Your task to perform on an android device: open chrome privacy settings Image 0: 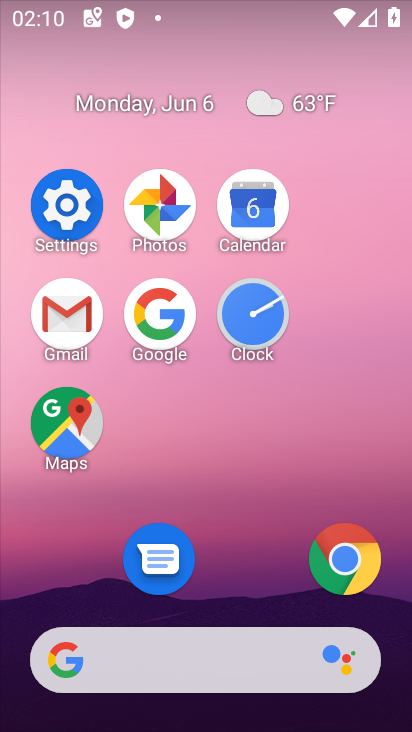
Step 0: click (366, 576)
Your task to perform on an android device: open chrome privacy settings Image 1: 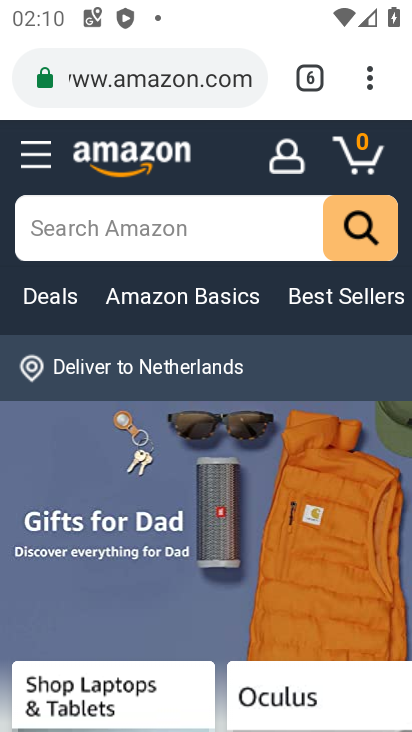
Step 1: click (375, 75)
Your task to perform on an android device: open chrome privacy settings Image 2: 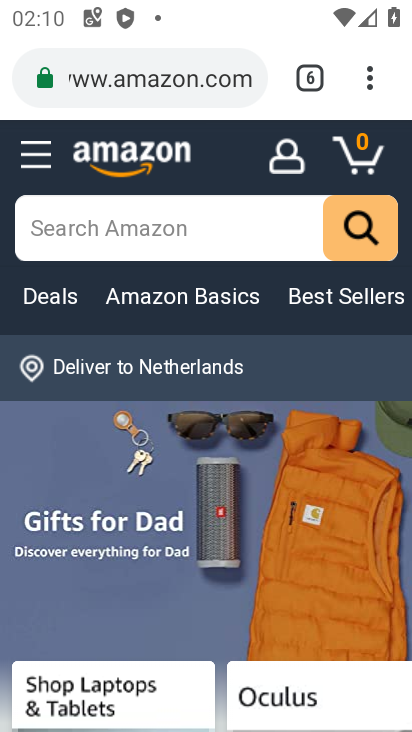
Step 2: click (364, 82)
Your task to perform on an android device: open chrome privacy settings Image 3: 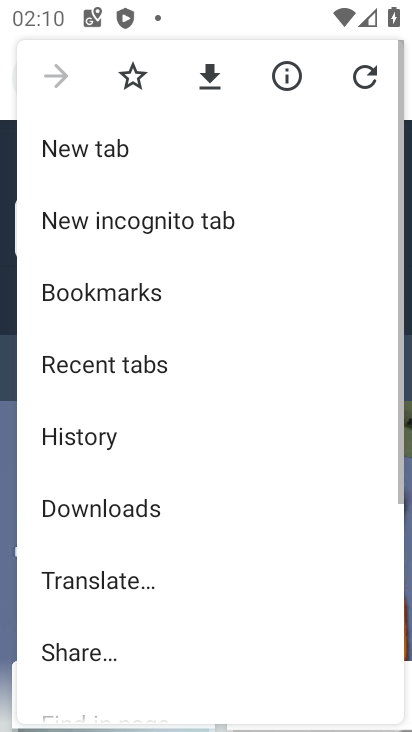
Step 3: drag from (215, 543) to (288, 178)
Your task to perform on an android device: open chrome privacy settings Image 4: 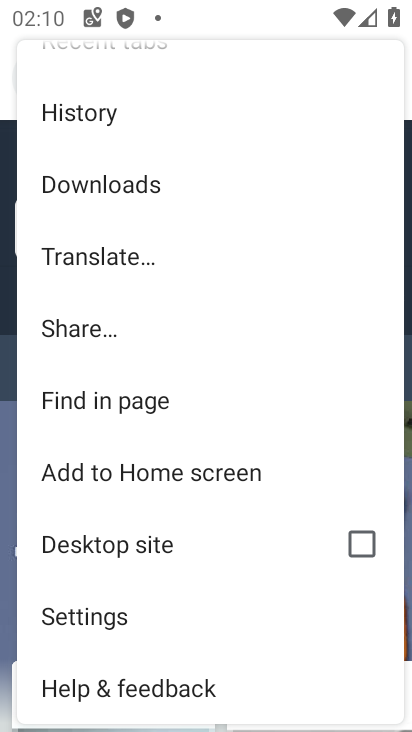
Step 4: click (120, 610)
Your task to perform on an android device: open chrome privacy settings Image 5: 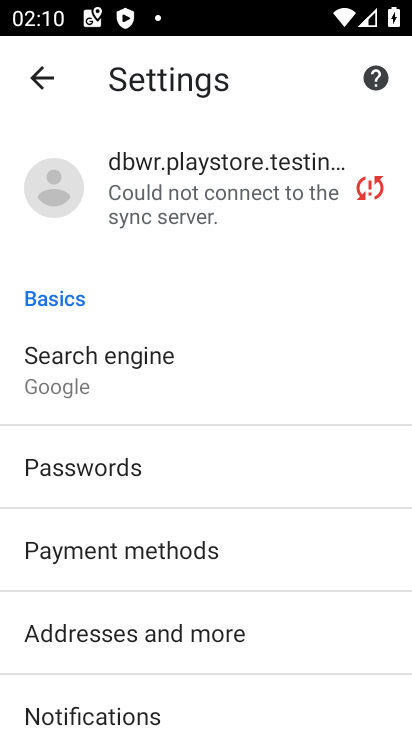
Step 5: drag from (148, 632) to (234, 313)
Your task to perform on an android device: open chrome privacy settings Image 6: 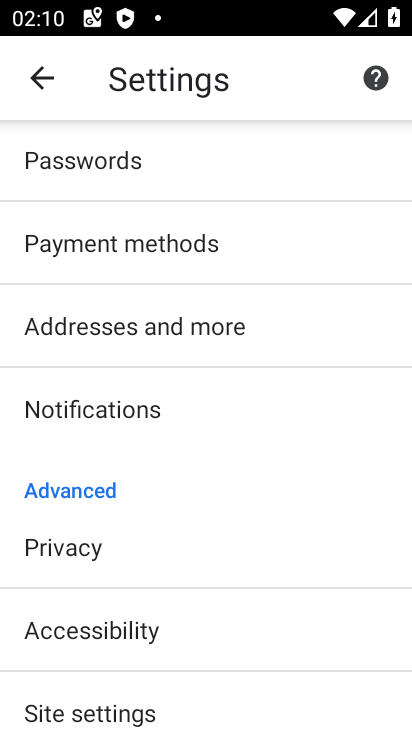
Step 6: click (120, 556)
Your task to perform on an android device: open chrome privacy settings Image 7: 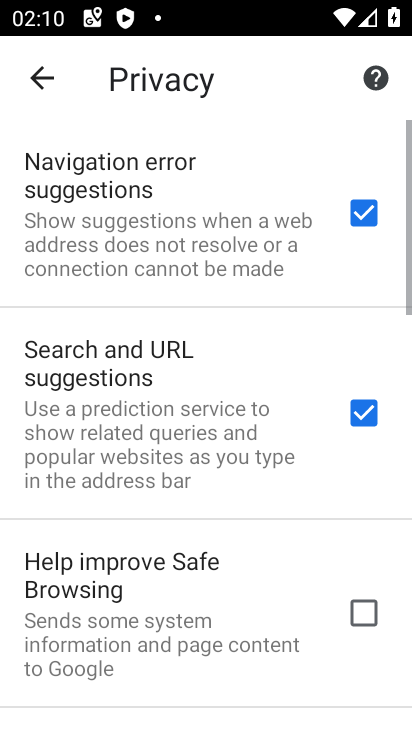
Step 7: drag from (120, 556) to (220, 211)
Your task to perform on an android device: open chrome privacy settings Image 8: 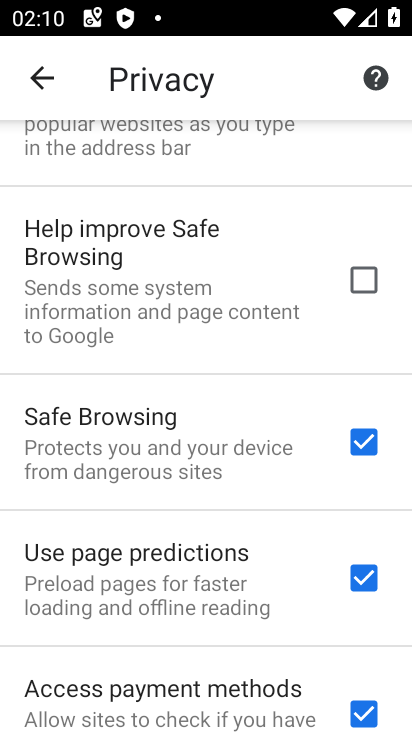
Step 8: drag from (242, 615) to (278, 245)
Your task to perform on an android device: open chrome privacy settings Image 9: 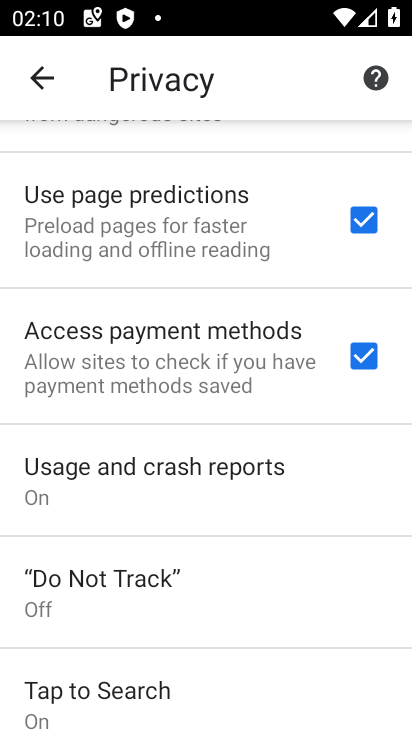
Step 9: drag from (256, 590) to (329, 241)
Your task to perform on an android device: open chrome privacy settings Image 10: 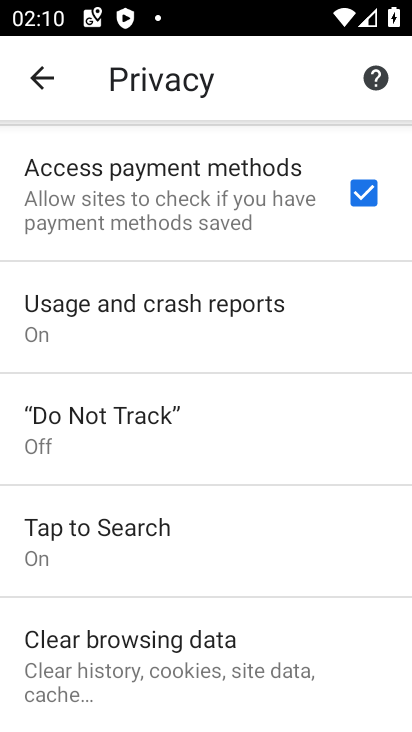
Step 10: click (265, 655)
Your task to perform on an android device: open chrome privacy settings Image 11: 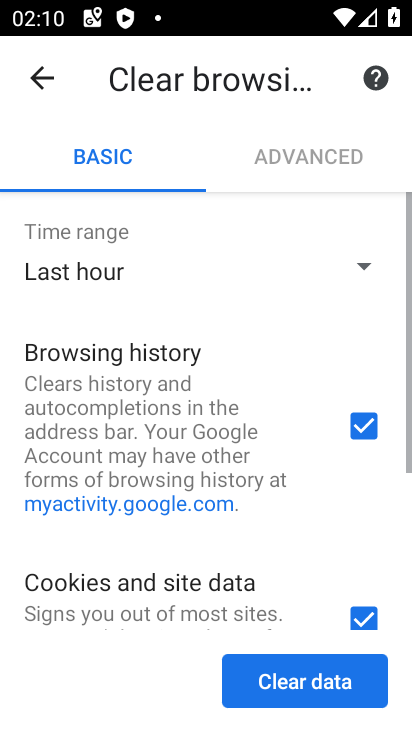
Step 11: drag from (263, 648) to (300, 251)
Your task to perform on an android device: open chrome privacy settings Image 12: 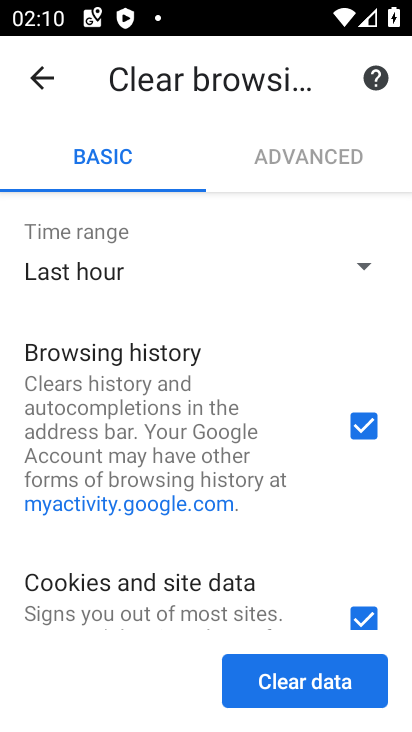
Step 12: drag from (206, 505) to (273, 211)
Your task to perform on an android device: open chrome privacy settings Image 13: 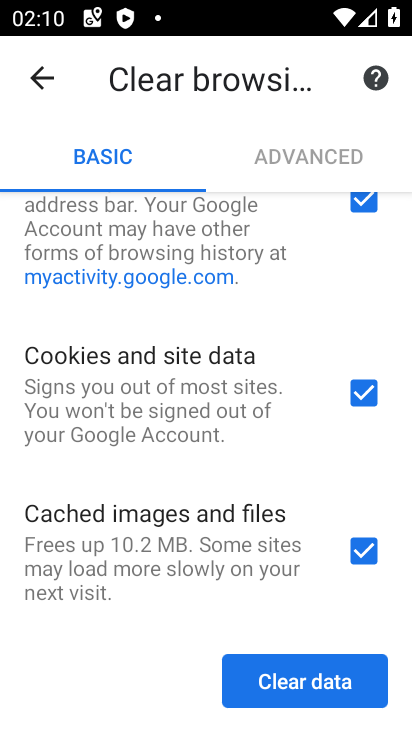
Step 13: drag from (256, 493) to (289, 242)
Your task to perform on an android device: open chrome privacy settings Image 14: 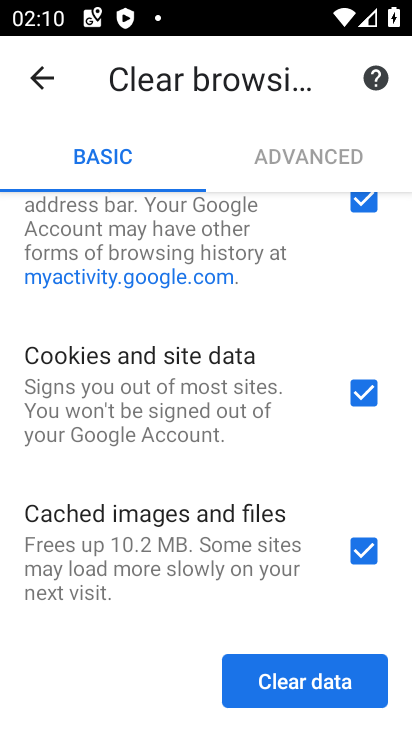
Step 14: click (306, 670)
Your task to perform on an android device: open chrome privacy settings Image 15: 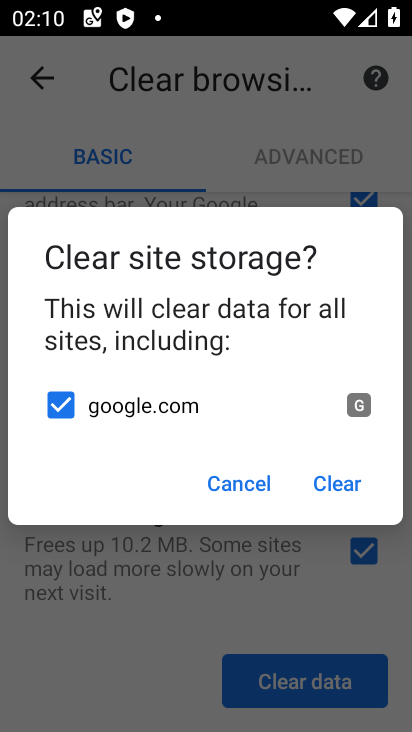
Step 15: click (344, 494)
Your task to perform on an android device: open chrome privacy settings Image 16: 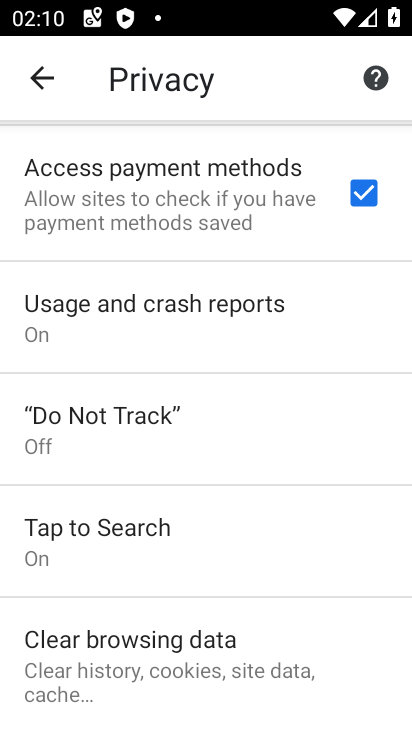
Step 16: task complete